Your task to perform on an android device: Open Google Chrome and click the shortcut for Amazon.com Image 0: 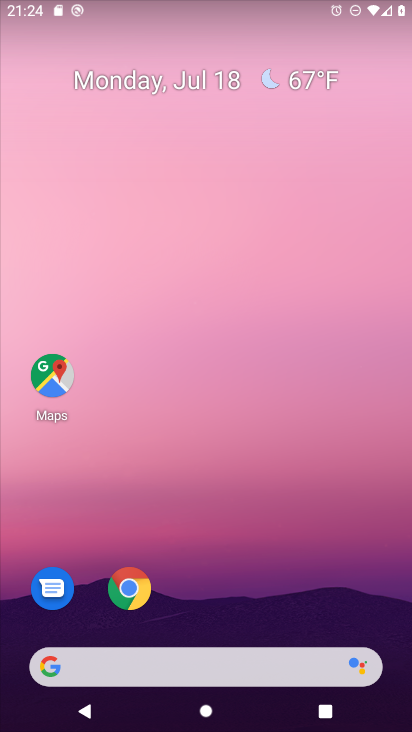
Step 0: click (126, 587)
Your task to perform on an android device: Open Google Chrome and click the shortcut for Amazon.com Image 1: 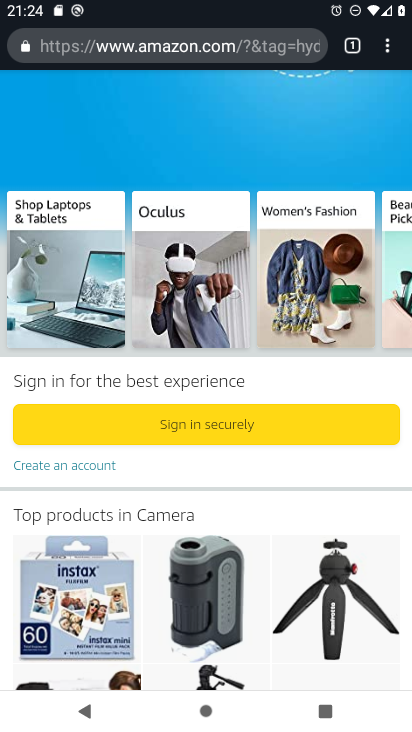
Step 1: click (390, 55)
Your task to perform on an android device: Open Google Chrome and click the shortcut for Amazon.com Image 2: 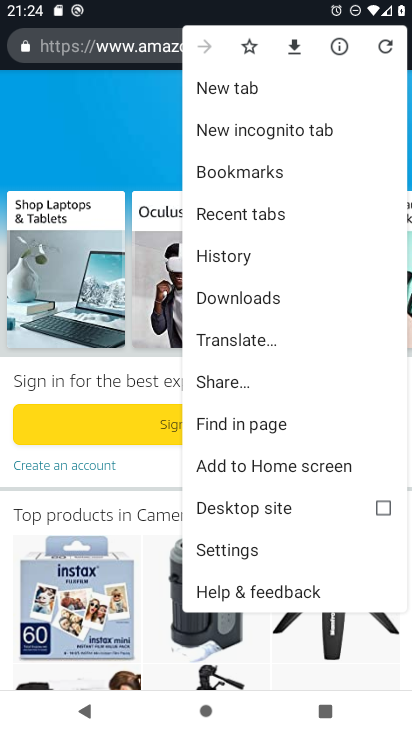
Step 2: click (248, 88)
Your task to perform on an android device: Open Google Chrome and click the shortcut for Amazon.com Image 3: 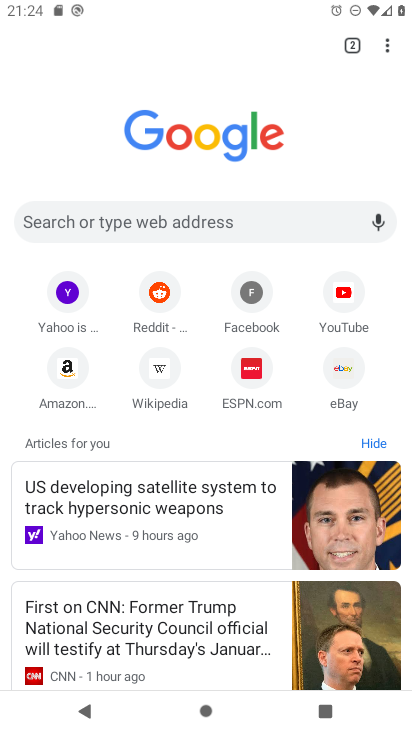
Step 3: click (67, 367)
Your task to perform on an android device: Open Google Chrome and click the shortcut for Amazon.com Image 4: 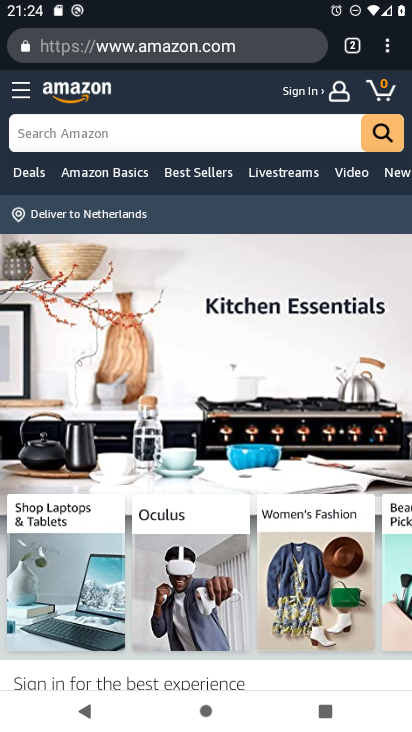
Step 4: task complete